Your task to perform on an android device: Go to display settings Image 0: 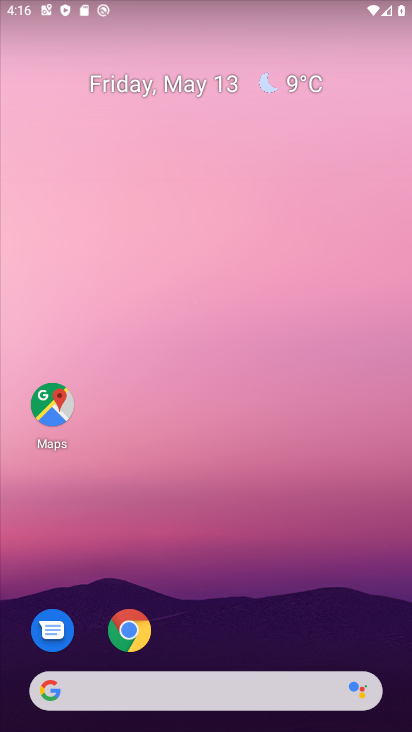
Step 0: drag from (242, 586) to (236, 47)
Your task to perform on an android device: Go to display settings Image 1: 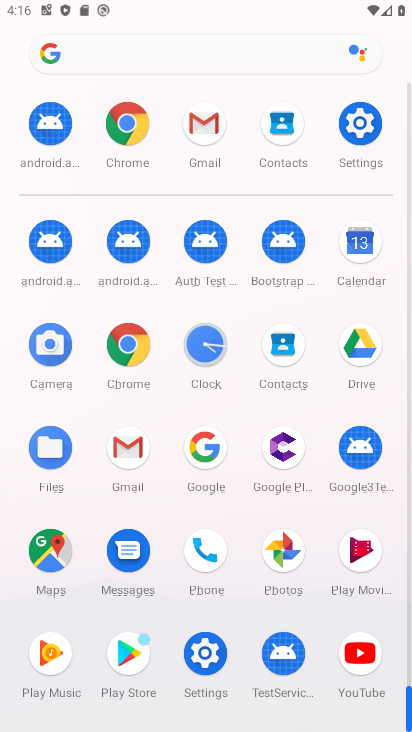
Step 1: click (203, 653)
Your task to perform on an android device: Go to display settings Image 2: 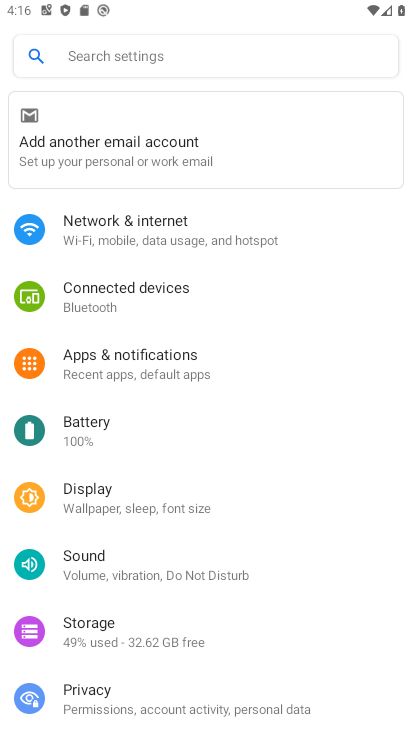
Step 2: click (115, 498)
Your task to perform on an android device: Go to display settings Image 3: 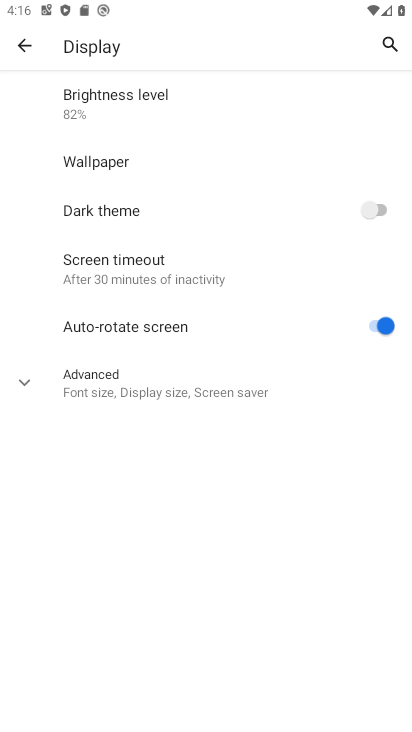
Step 3: click (34, 374)
Your task to perform on an android device: Go to display settings Image 4: 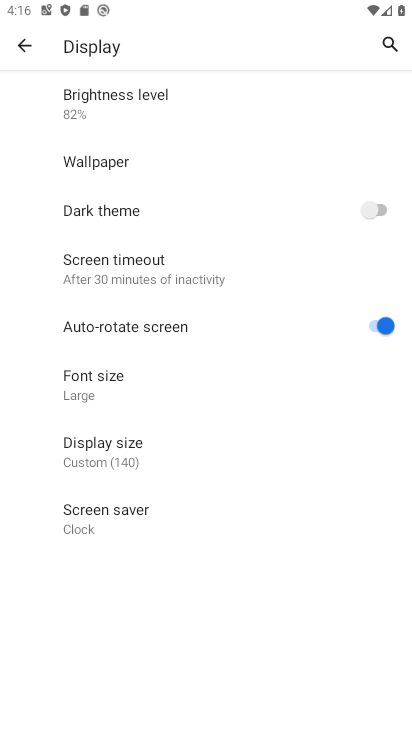
Step 4: task complete